Your task to perform on an android device: uninstall "Google Calendar" Image 0: 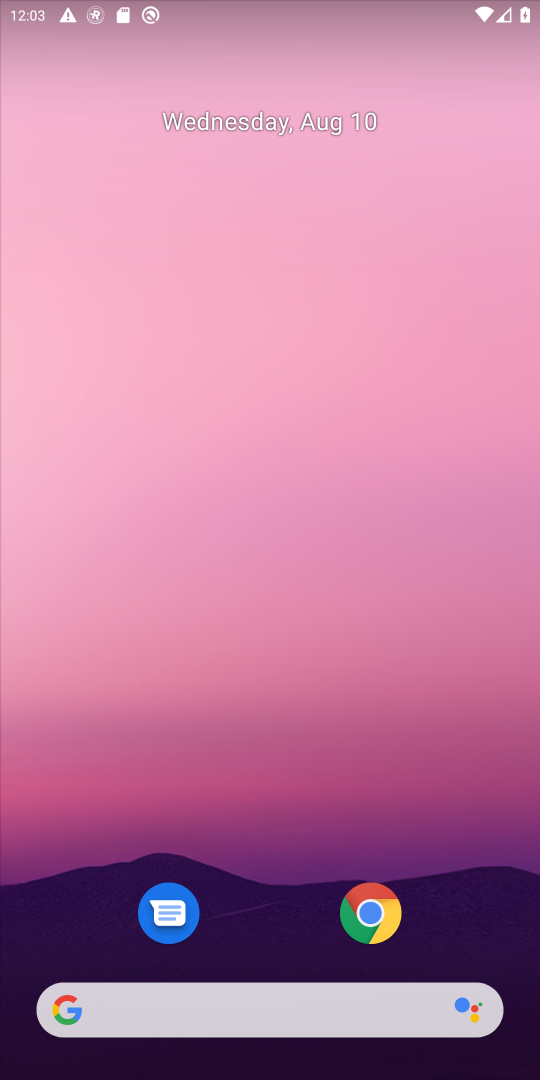
Step 0: drag from (196, 955) to (203, 383)
Your task to perform on an android device: uninstall "Google Calendar" Image 1: 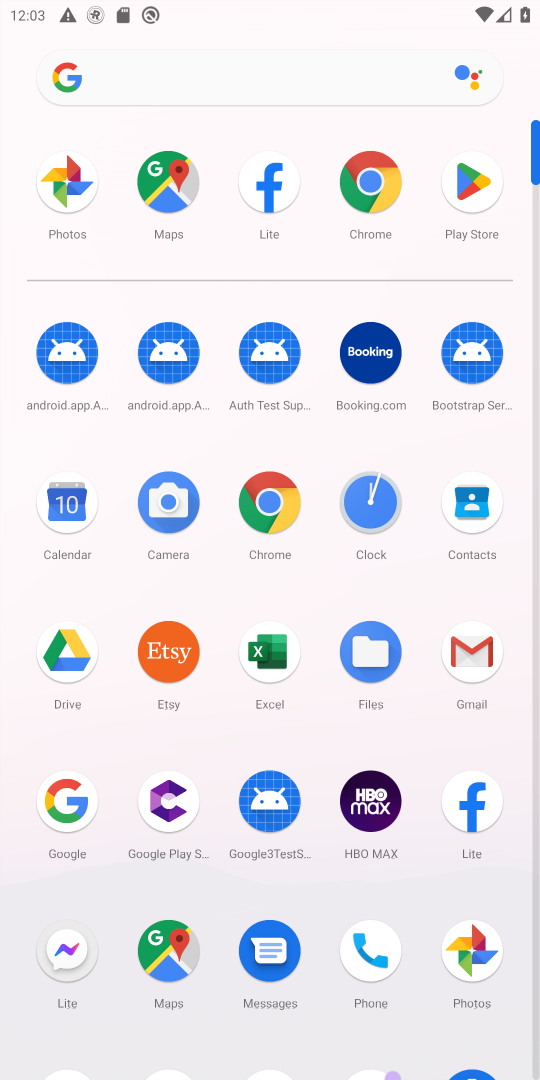
Step 1: click (469, 171)
Your task to perform on an android device: uninstall "Google Calendar" Image 2: 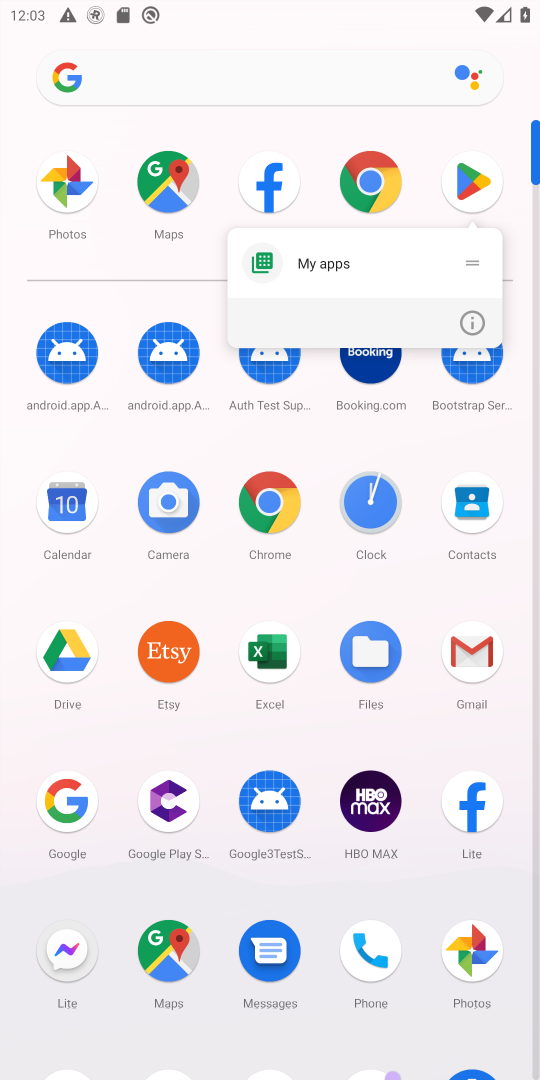
Step 2: click (469, 171)
Your task to perform on an android device: uninstall "Google Calendar" Image 3: 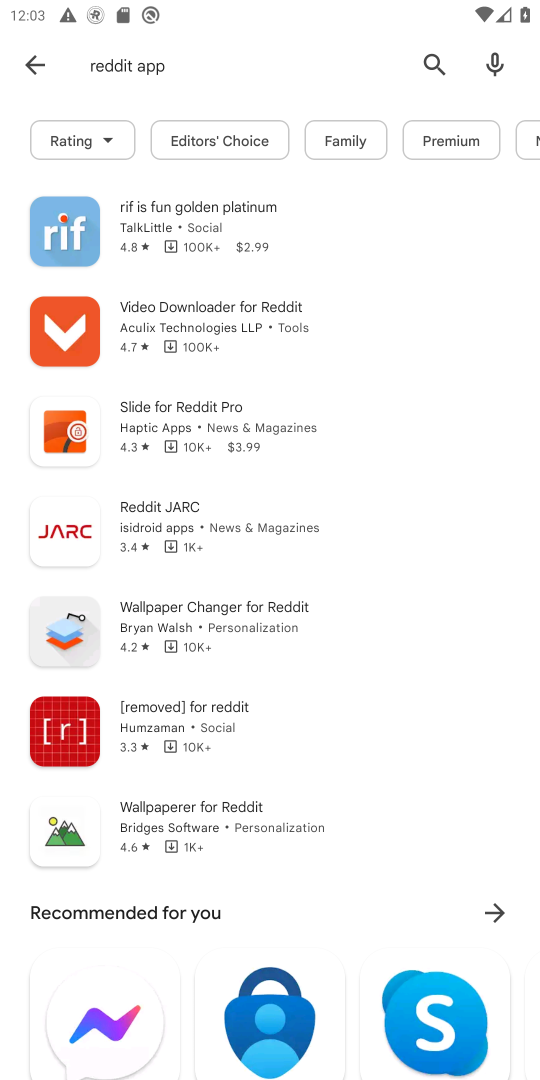
Step 3: click (36, 80)
Your task to perform on an android device: uninstall "Google Calendar" Image 4: 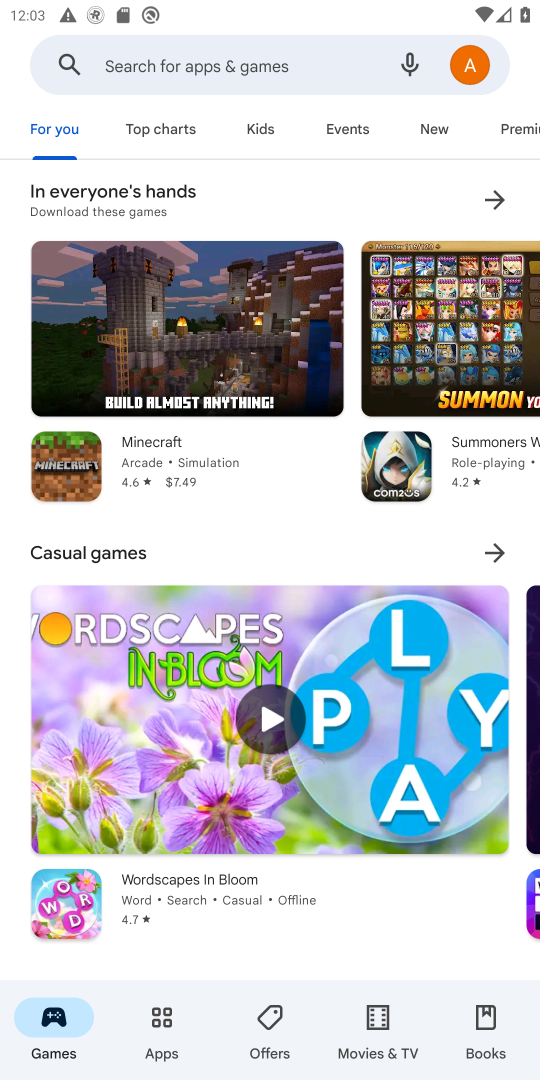
Step 4: click (150, 46)
Your task to perform on an android device: uninstall "Google Calendar" Image 5: 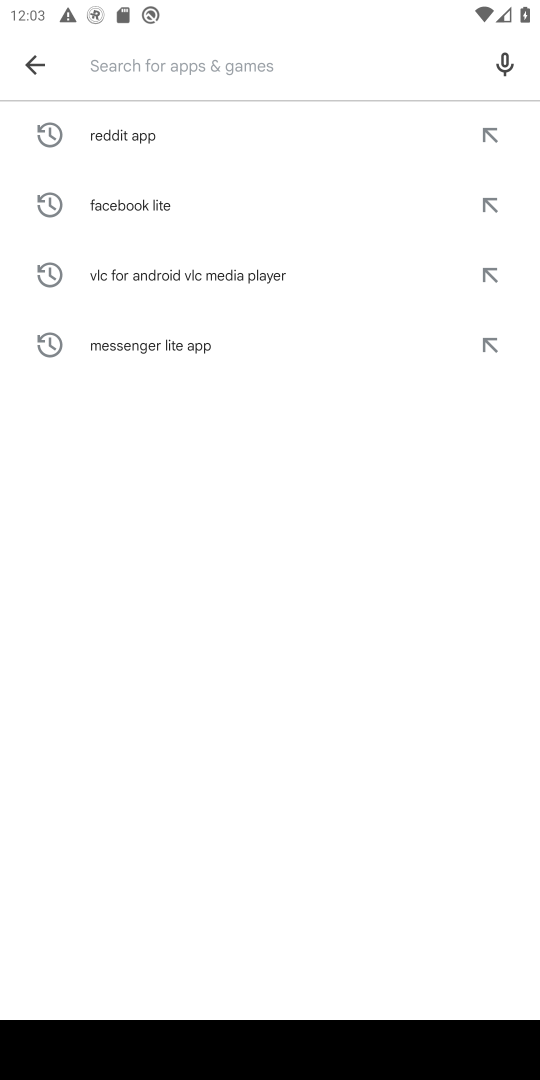
Step 5: type "google clander "
Your task to perform on an android device: uninstall "Google Calendar" Image 6: 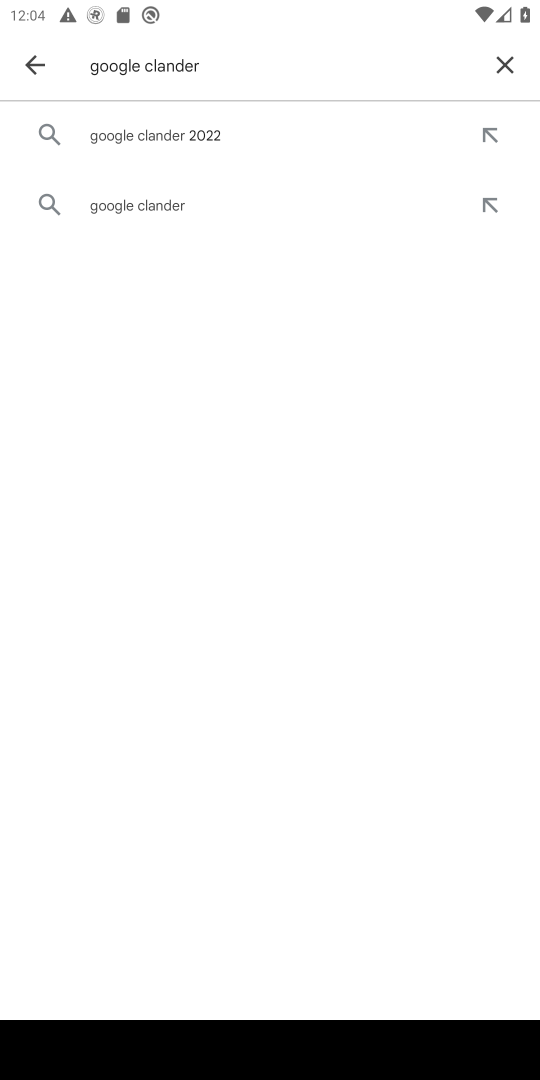
Step 6: click (136, 198)
Your task to perform on an android device: uninstall "Google Calendar" Image 7: 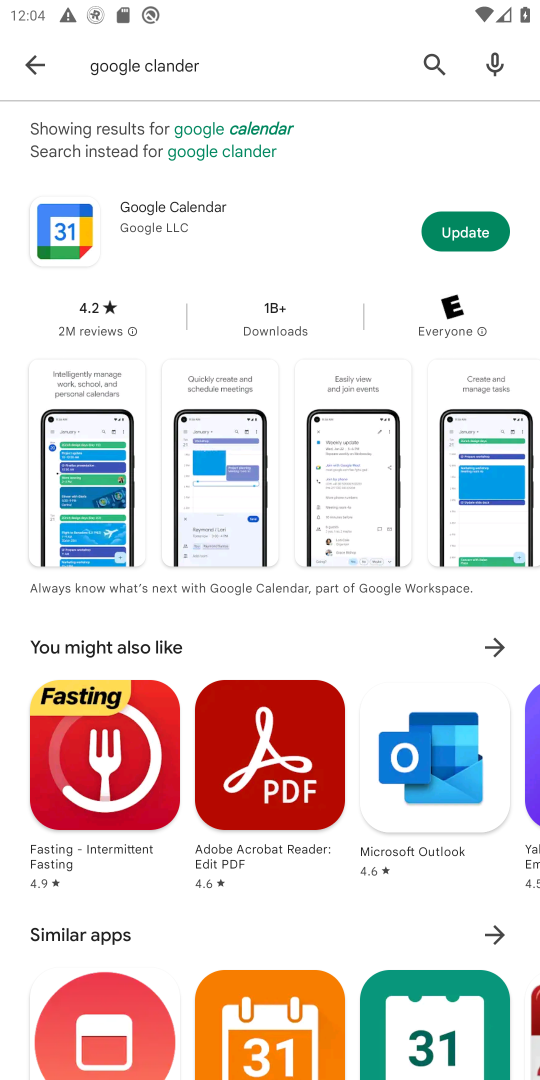
Step 7: click (443, 224)
Your task to perform on an android device: uninstall "Google Calendar" Image 8: 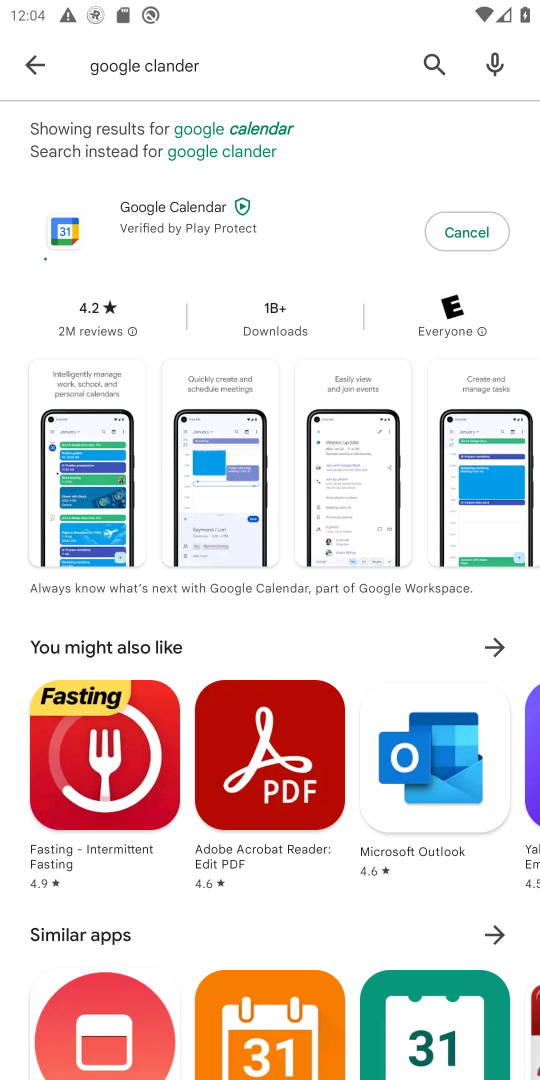
Step 8: click (247, 221)
Your task to perform on an android device: uninstall "Google Calendar" Image 9: 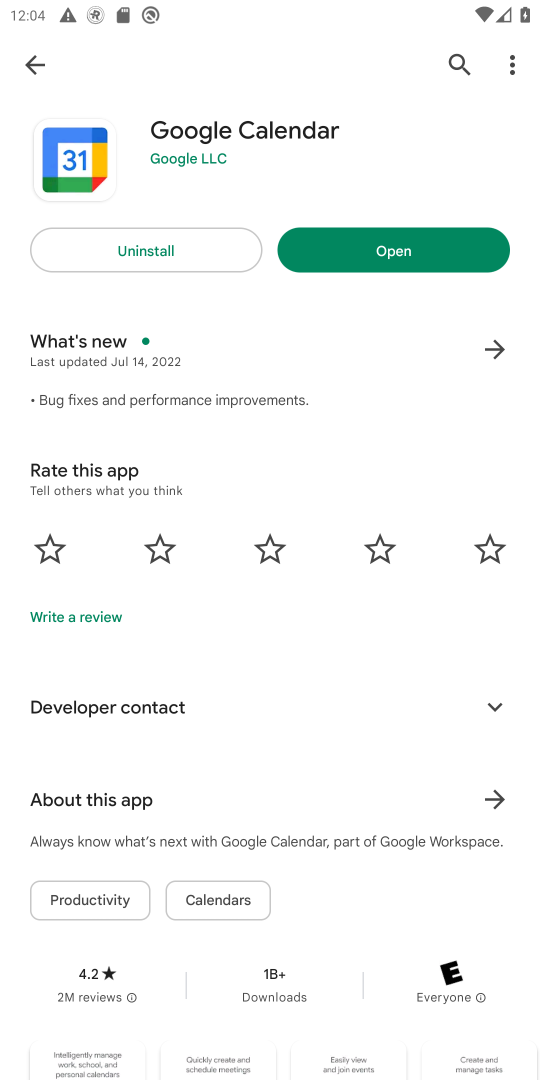
Step 9: click (184, 248)
Your task to perform on an android device: uninstall "Google Calendar" Image 10: 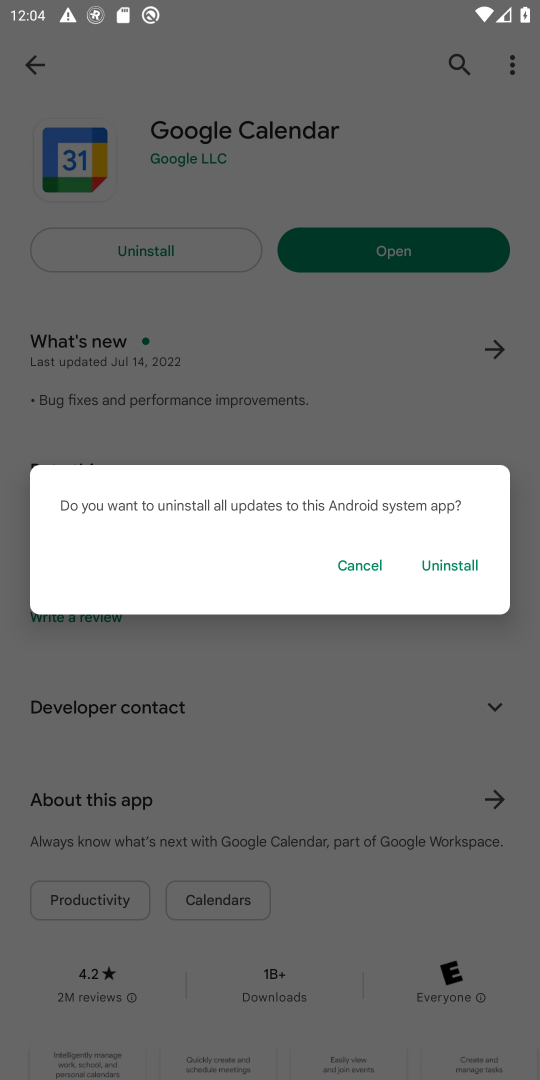
Step 10: click (449, 556)
Your task to perform on an android device: uninstall "Google Calendar" Image 11: 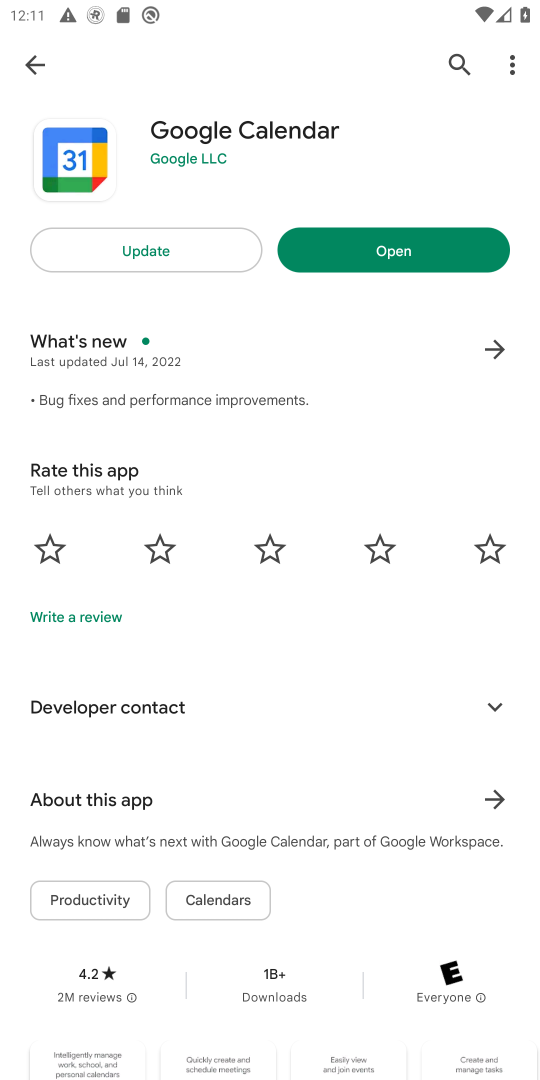
Step 11: task complete